Your task to perform on an android device: Show me recent news Image 0: 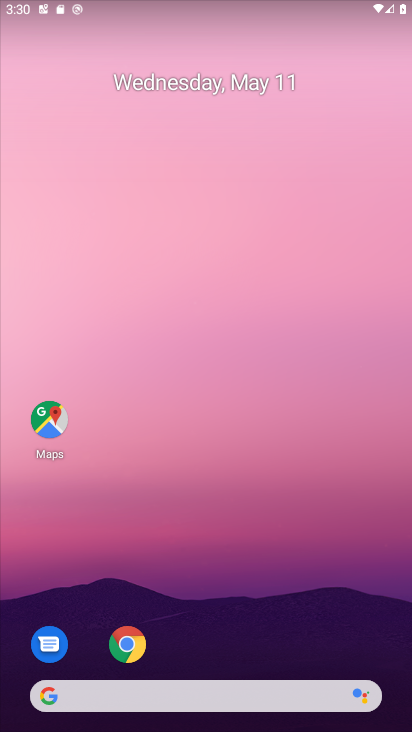
Step 0: click (203, 690)
Your task to perform on an android device: Show me recent news Image 1: 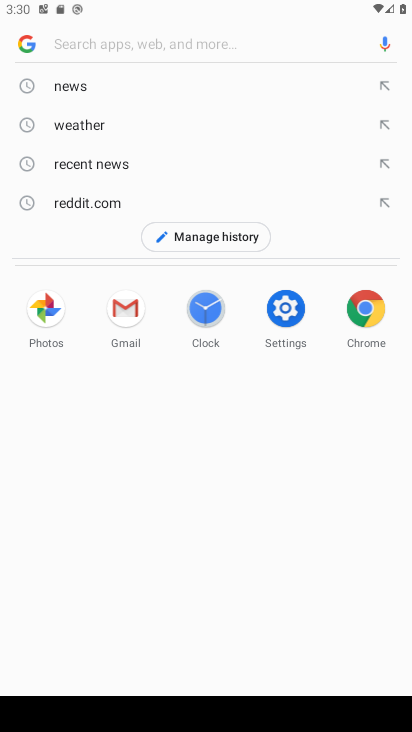
Step 1: click (55, 87)
Your task to perform on an android device: Show me recent news Image 2: 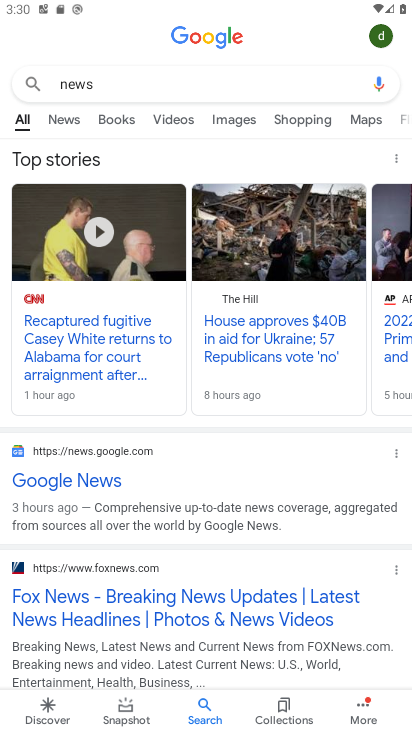
Step 2: click (69, 128)
Your task to perform on an android device: Show me recent news Image 3: 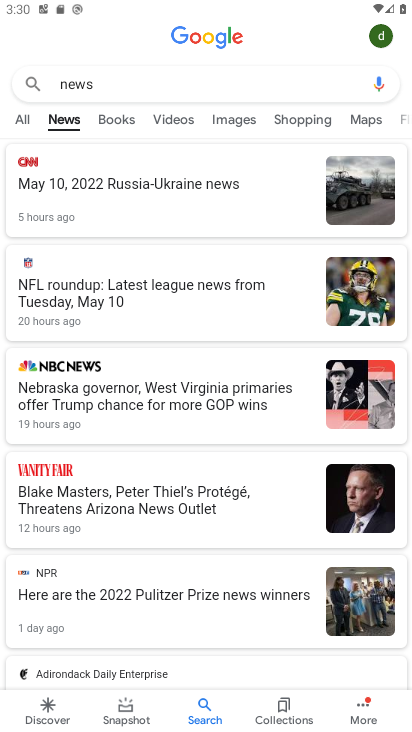
Step 3: task complete